Your task to perform on an android device: Empty the shopping cart on bestbuy.com. Add "razer blackwidow" to the cart on bestbuy.com Image 0: 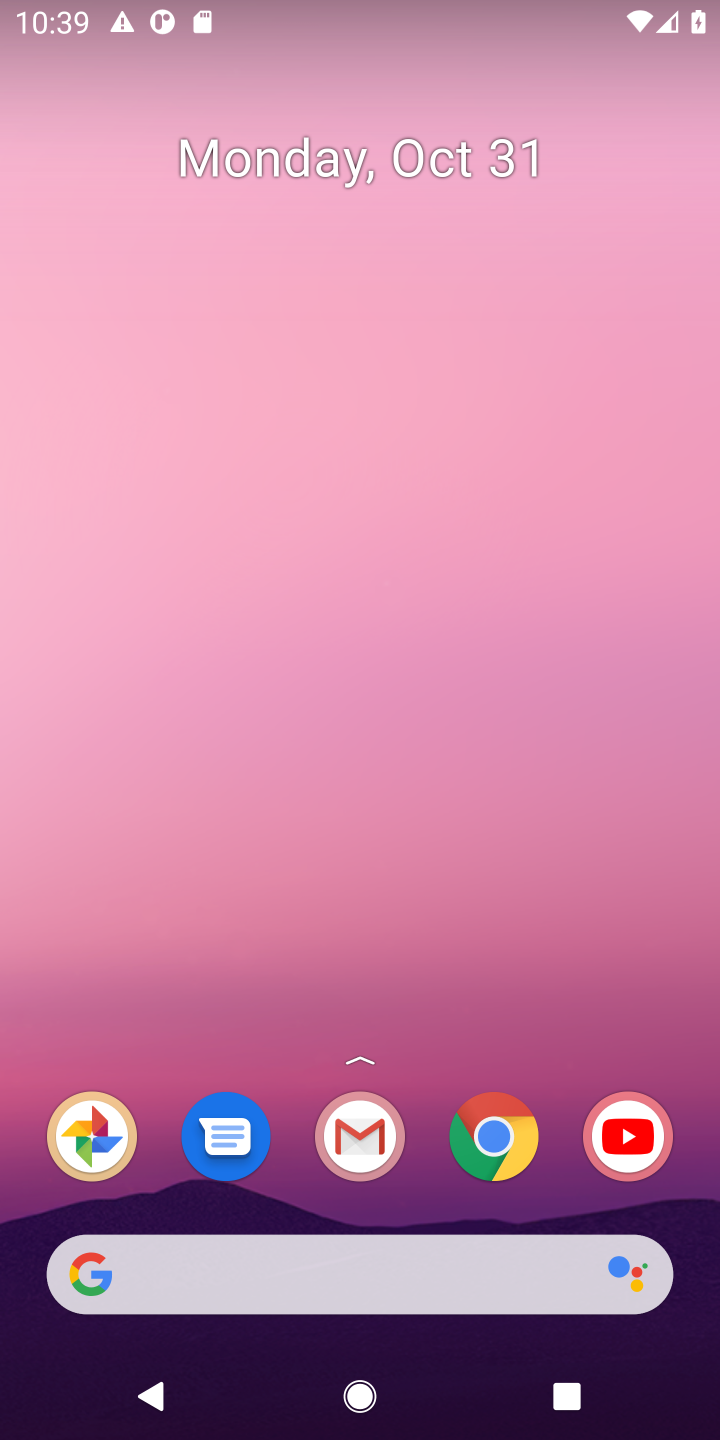
Step 0: press home button
Your task to perform on an android device: Empty the shopping cart on bestbuy.com. Add "razer blackwidow" to the cart on bestbuy.com Image 1: 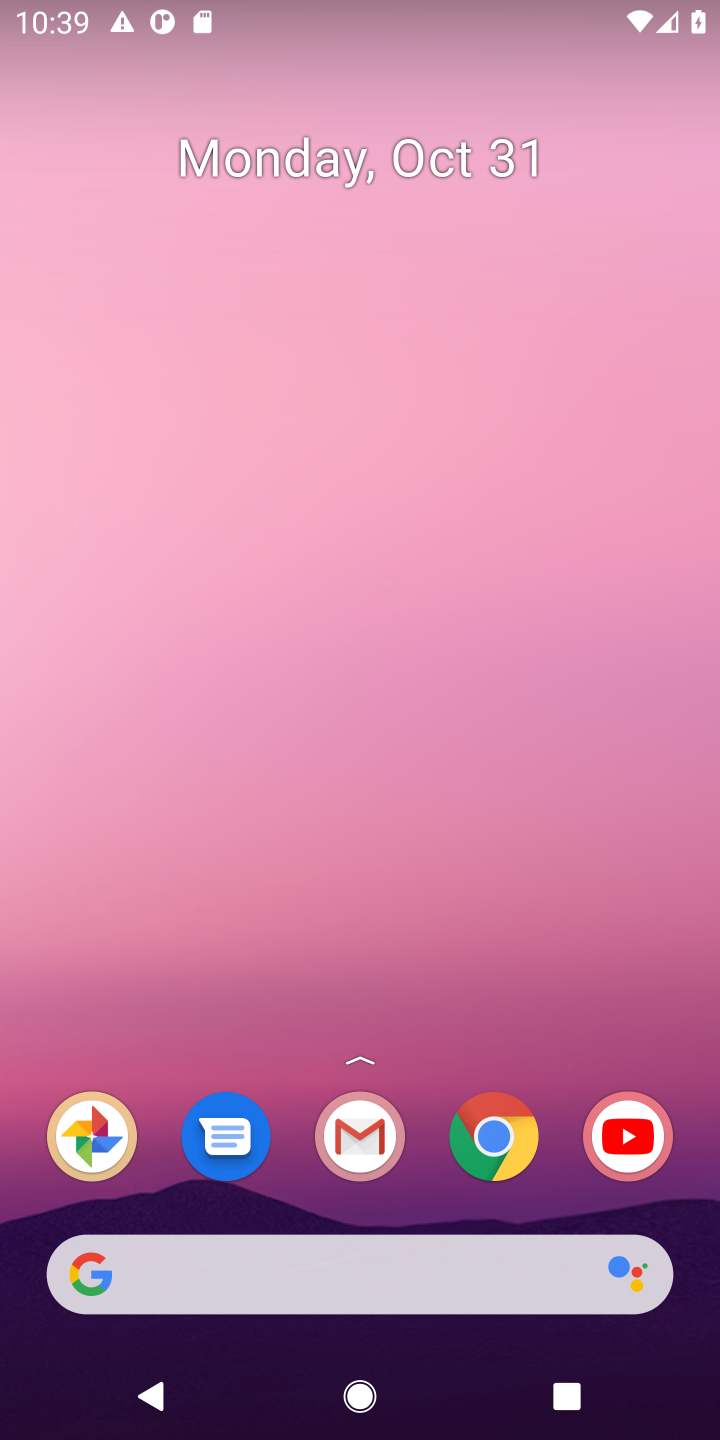
Step 1: click (134, 1268)
Your task to perform on an android device: Empty the shopping cart on bestbuy.com. Add "razer blackwidow" to the cart on bestbuy.com Image 2: 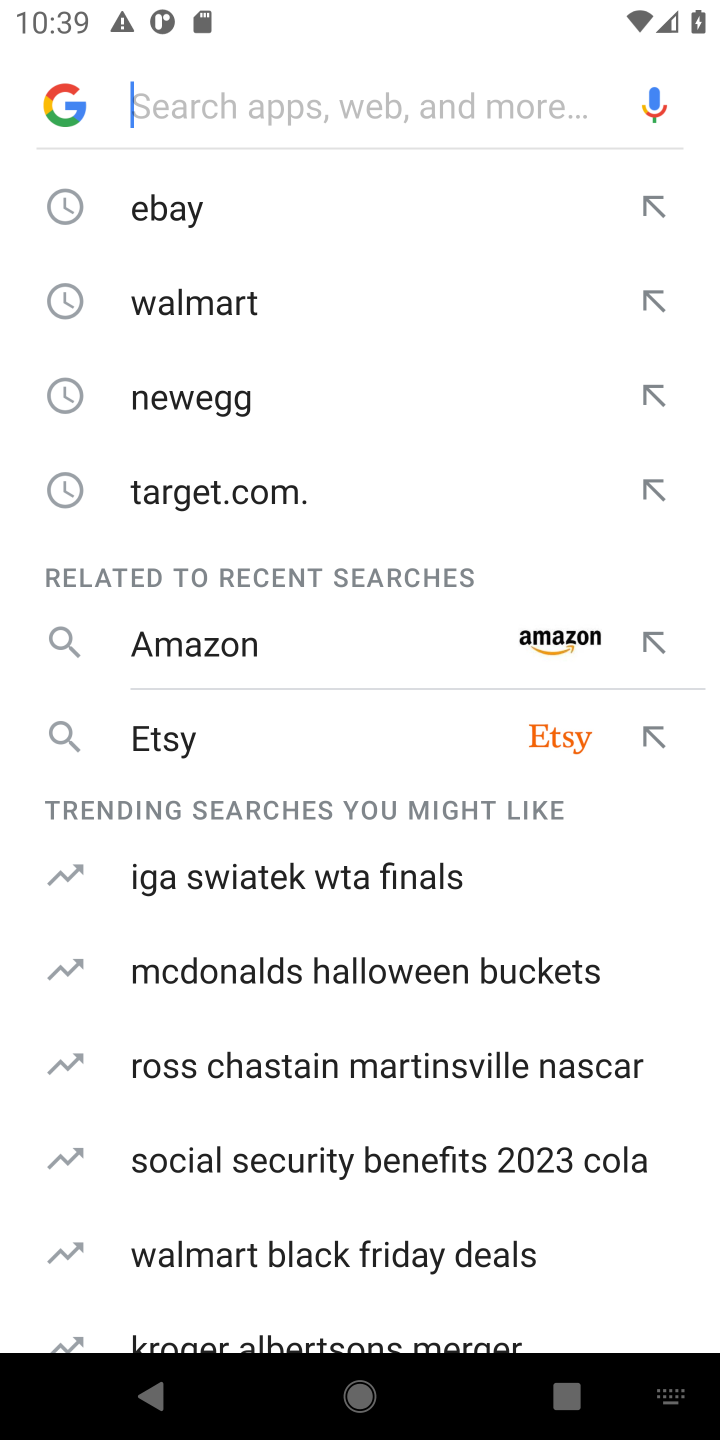
Step 2: type " bestbuy.com"
Your task to perform on an android device: Empty the shopping cart on bestbuy.com. Add "razer blackwidow" to the cart on bestbuy.com Image 3: 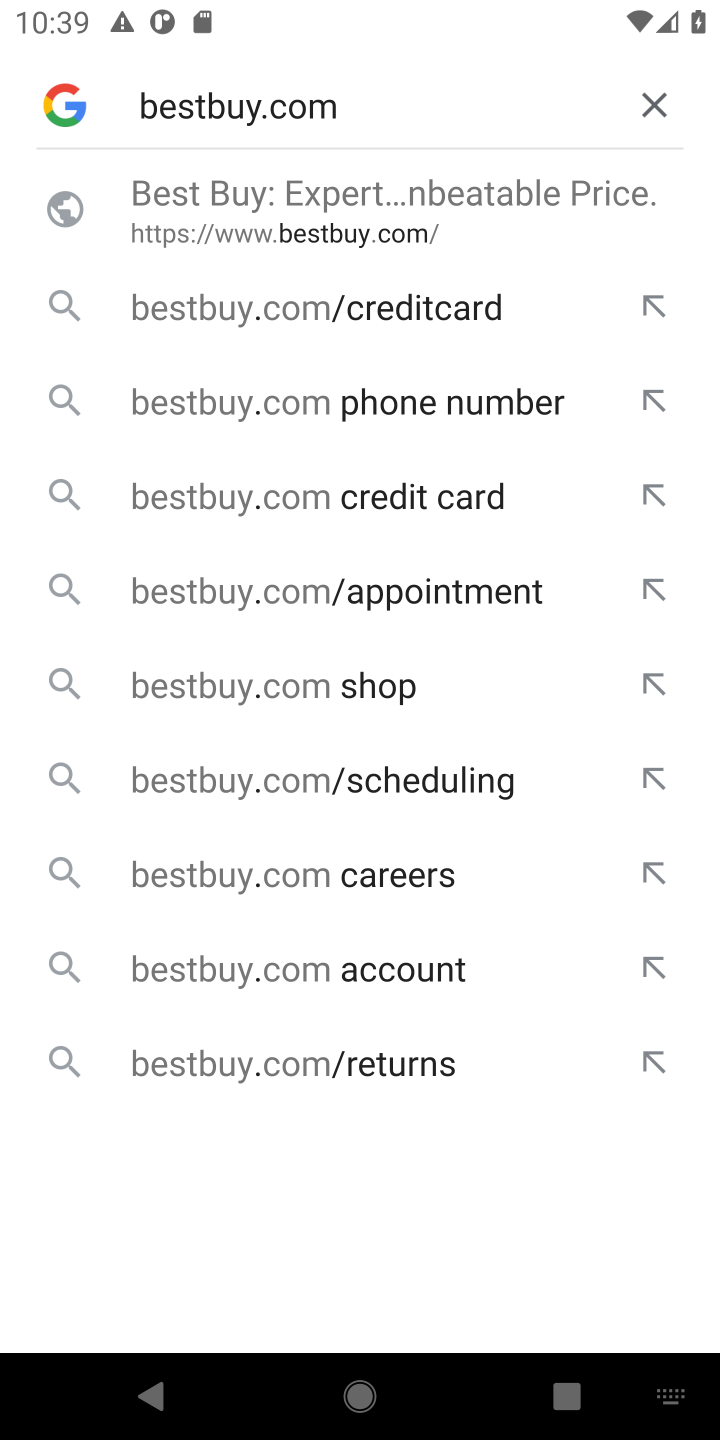
Step 3: press enter
Your task to perform on an android device: Empty the shopping cart on bestbuy.com. Add "razer blackwidow" to the cart on bestbuy.com Image 4: 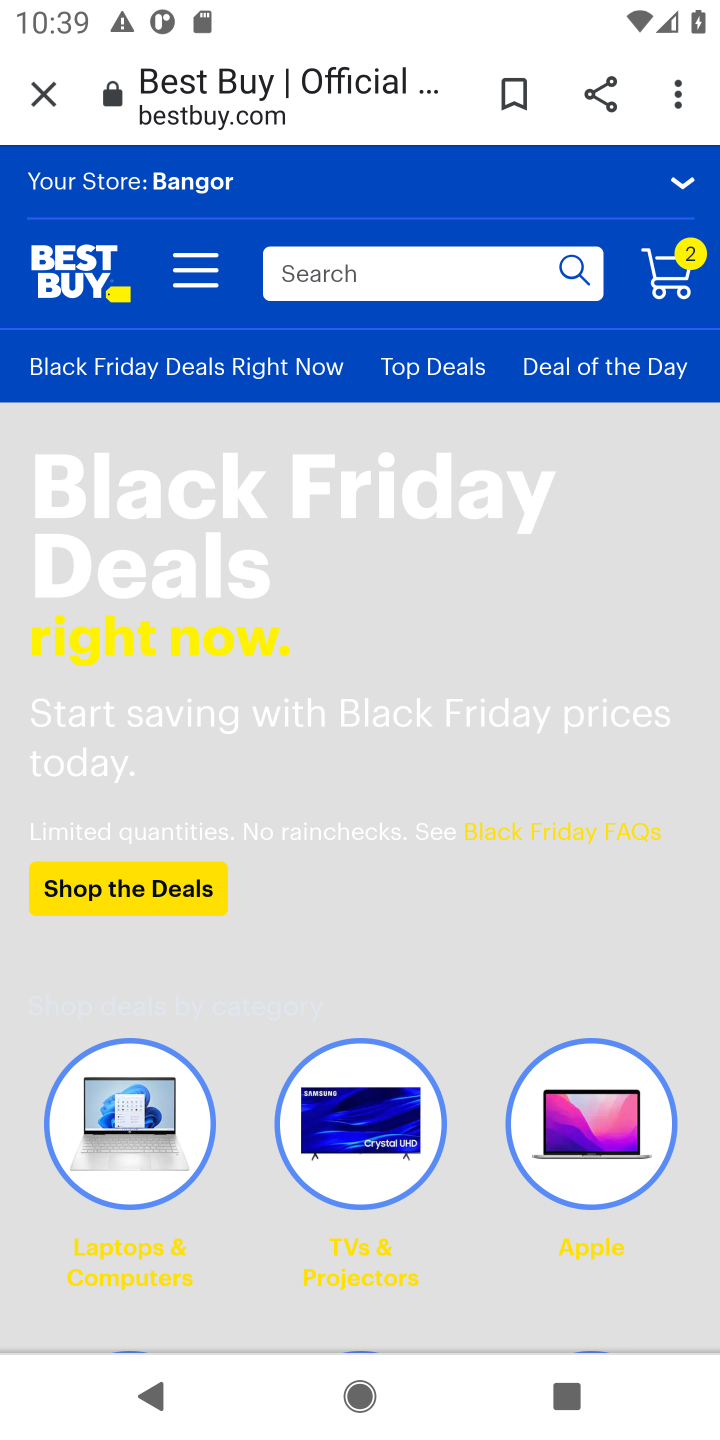
Step 4: click (685, 258)
Your task to perform on an android device: Empty the shopping cart on bestbuy.com. Add "razer blackwidow" to the cart on bestbuy.com Image 5: 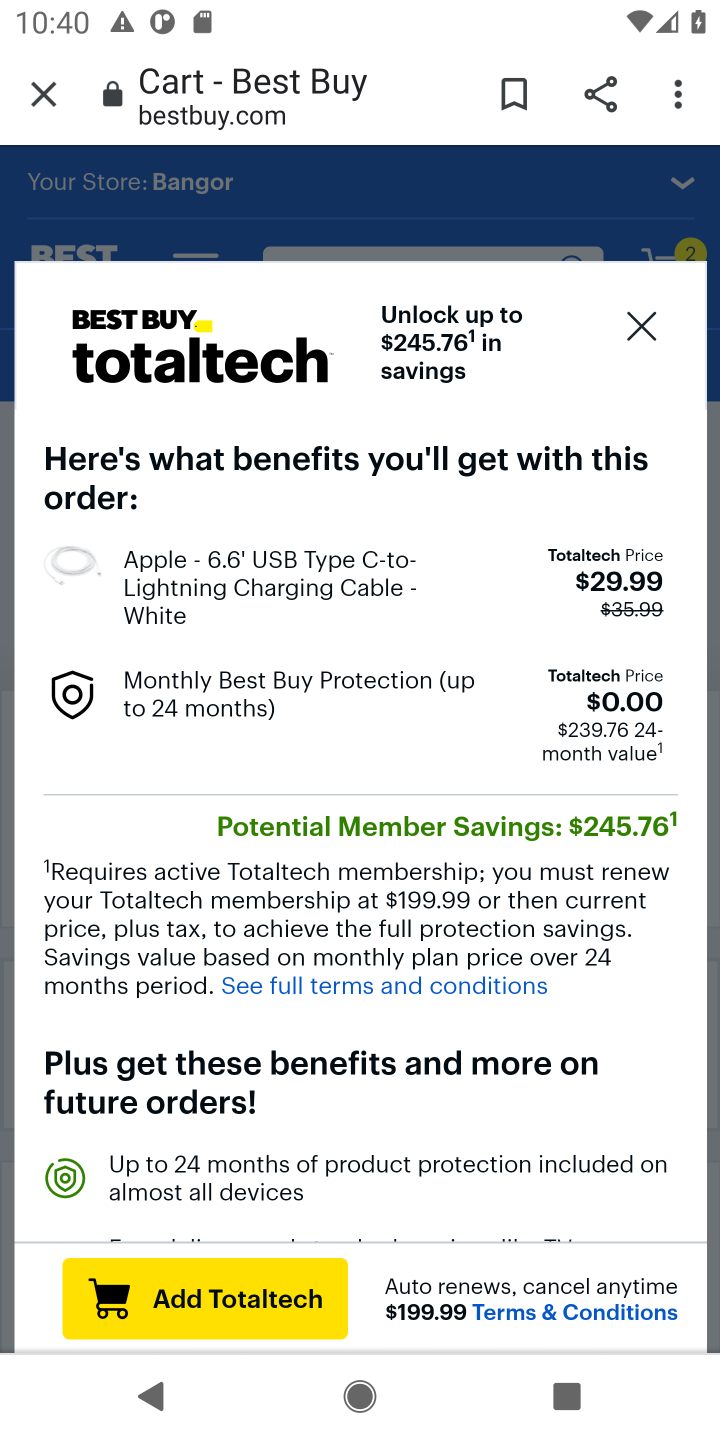
Step 5: click (648, 321)
Your task to perform on an android device: Empty the shopping cart on bestbuy.com. Add "razer blackwidow" to the cart on bestbuy.com Image 6: 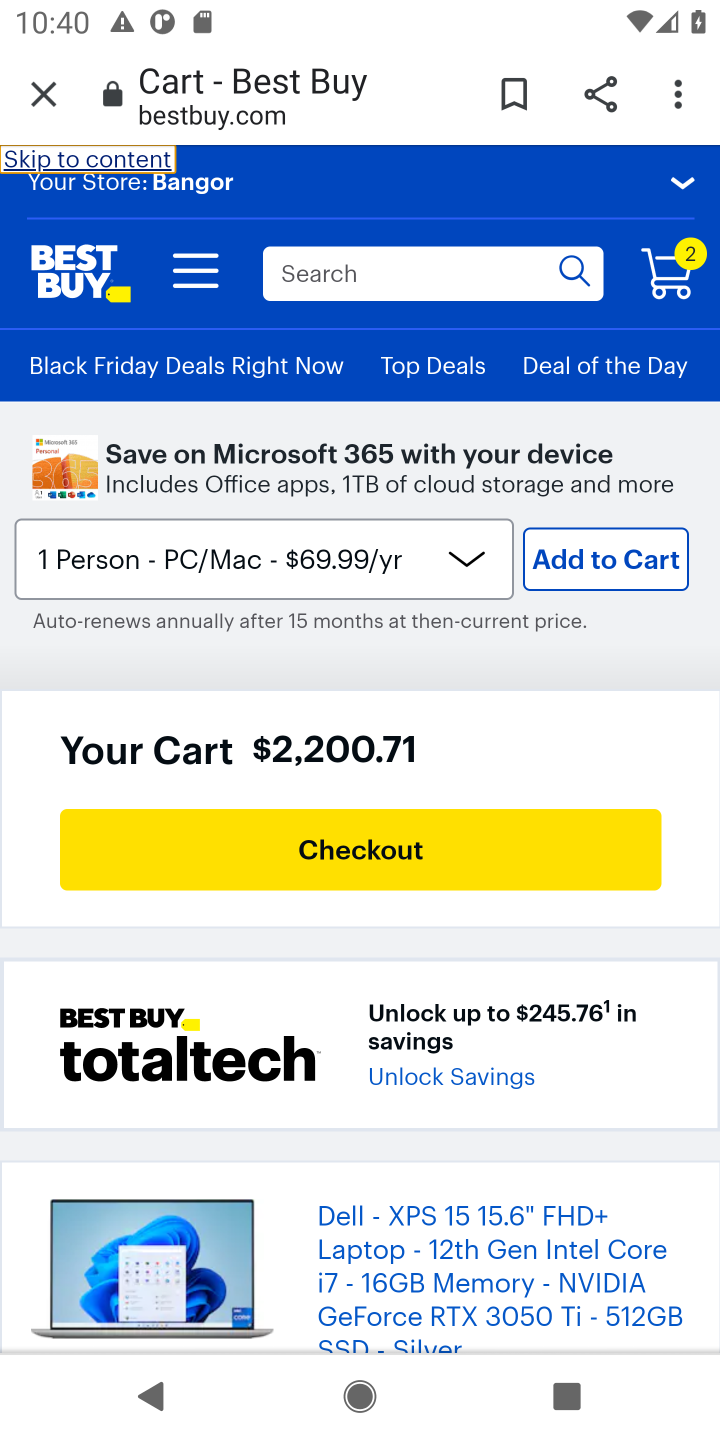
Step 6: drag from (264, 1053) to (294, 413)
Your task to perform on an android device: Empty the shopping cart on bestbuy.com. Add "razer blackwidow" to the cart on bestbuy.com Image 7: 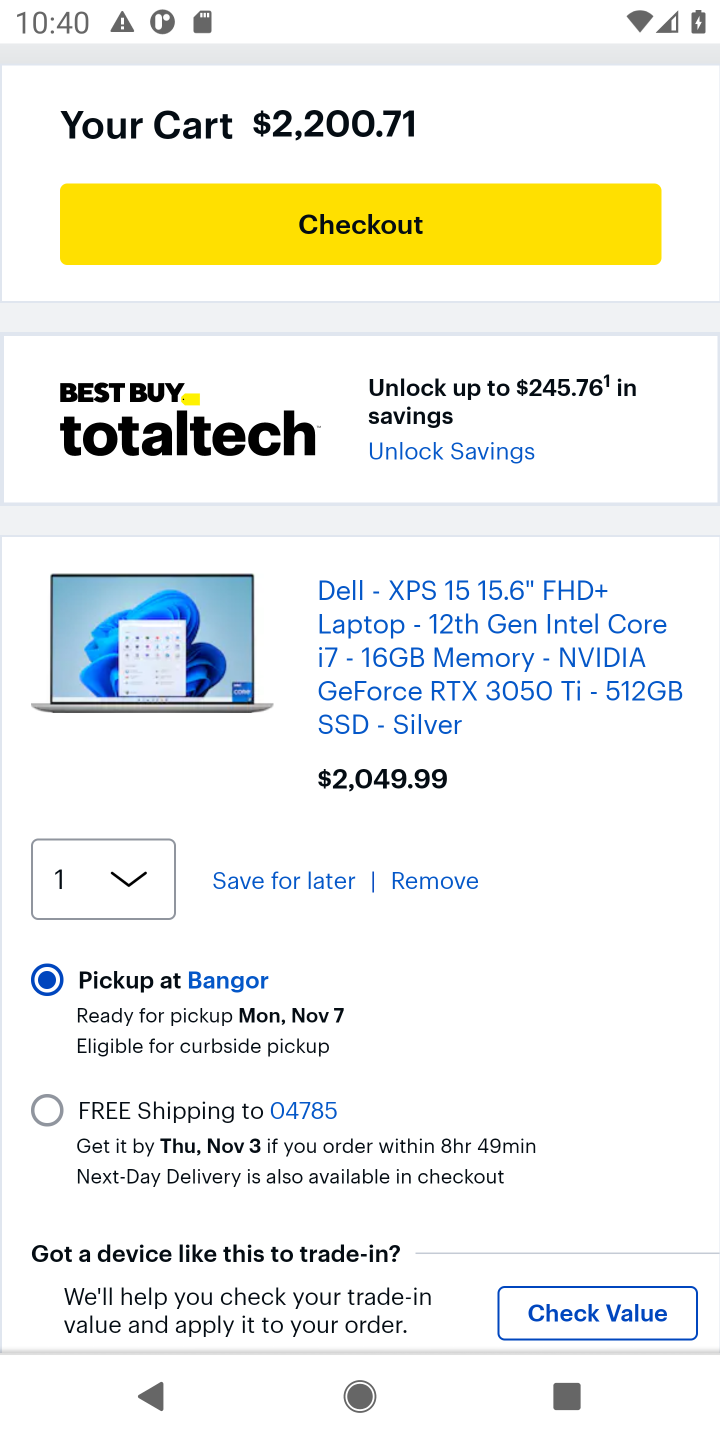
Step 7: click (440, 876)
Your task to perform on an android device: Empty the shopping cart on bestbuy.com. Add "razer blackwidow" to the cart on bestbuy.com Image 8: 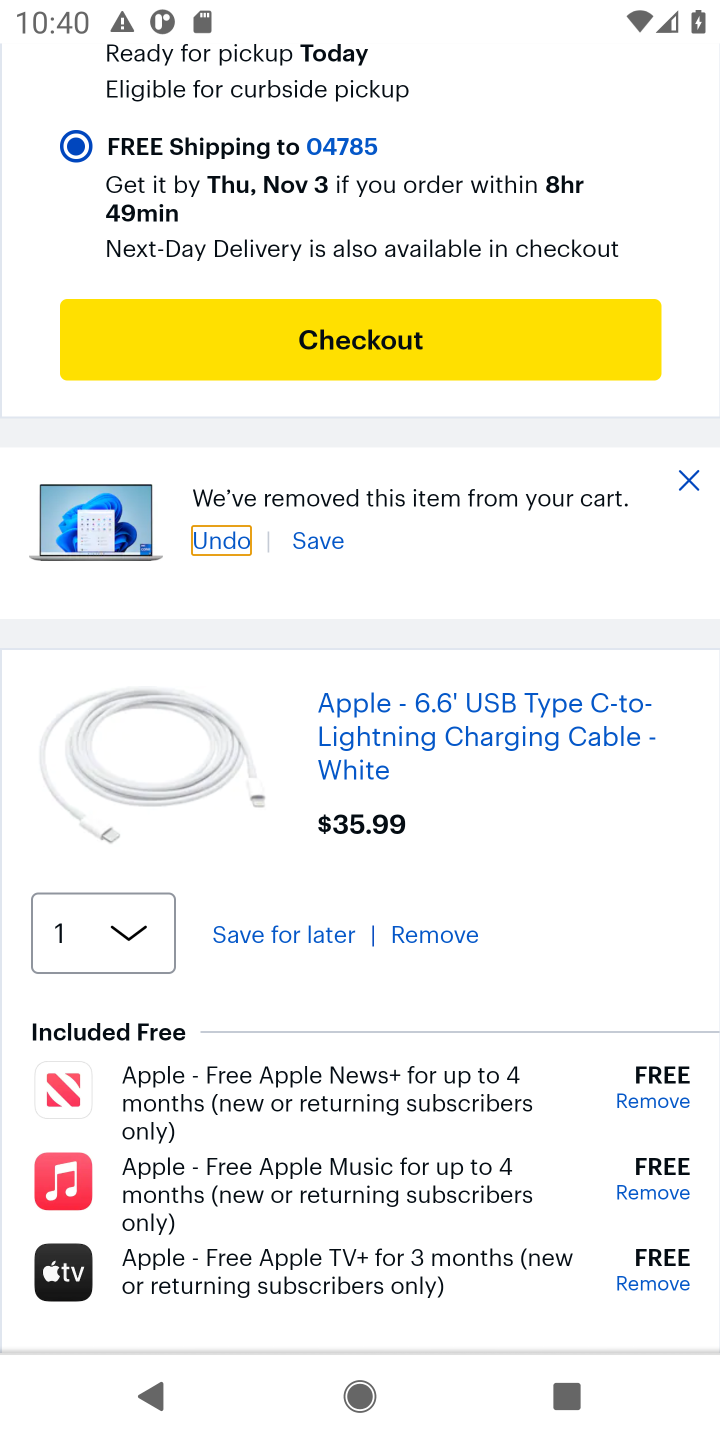
Step 8: click (441, 935)
Your task to perform on an android device: Empty the shopping cart on bestbuy.com. Add "razer blackwidow" to the cart on bestbuy.com Image 9: 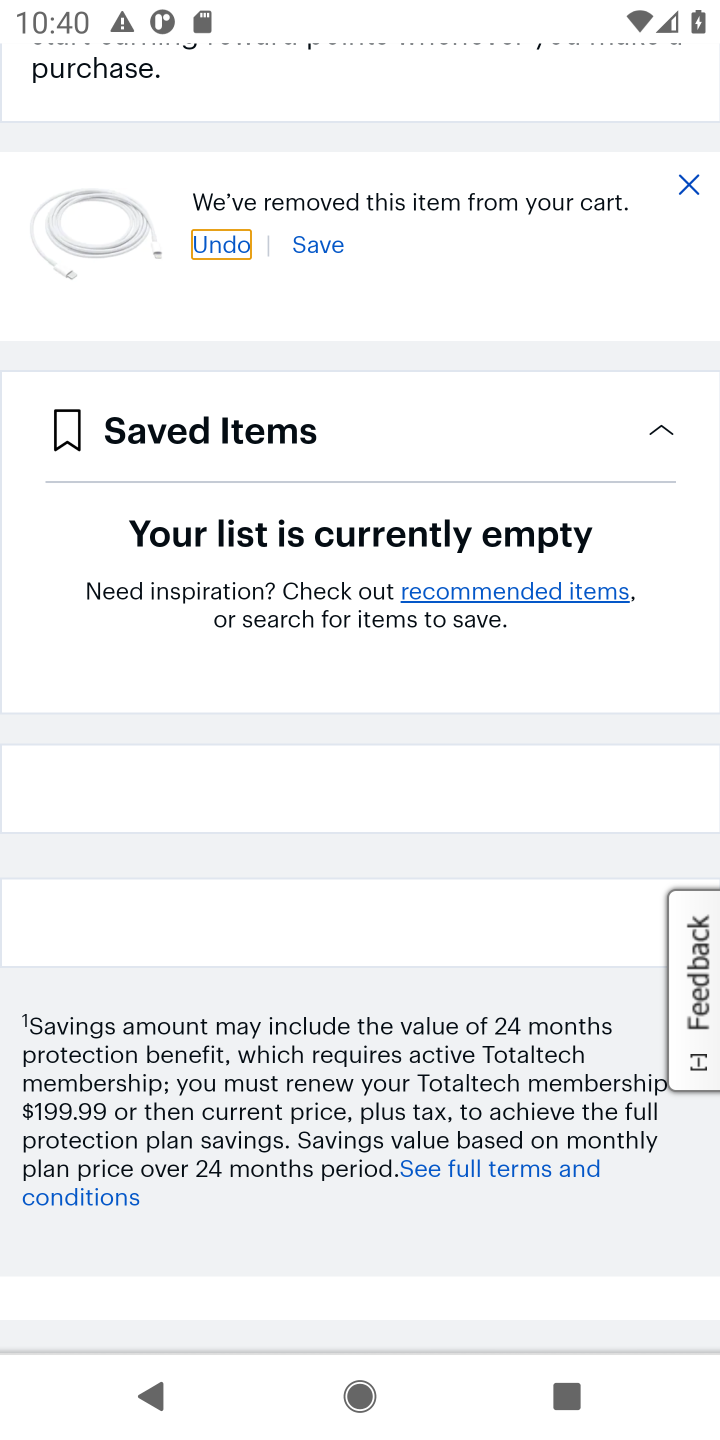
Step 9: drag from (528, 237) to (466, 914)
Your task to perform on an android device: Empty the shopping cart on bestbuy.com. Add "razer blackwidow" to the cart on bestbuy.com Image 10: 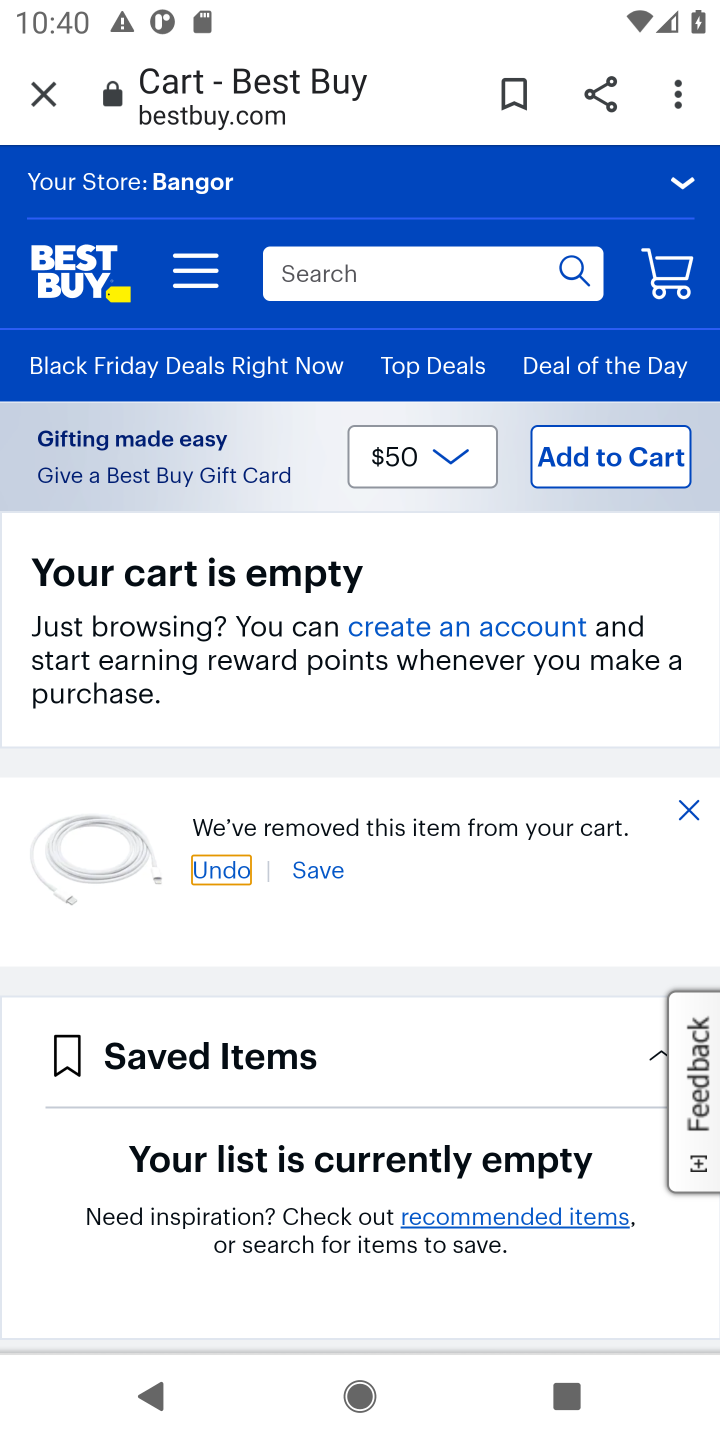
Step 10: click (693, 799)
Your task to perform on an android device: Empty the shopping cart on bestbuy.com. Add "razer blackwidow" to the cart on bestbuy.com Image 11: 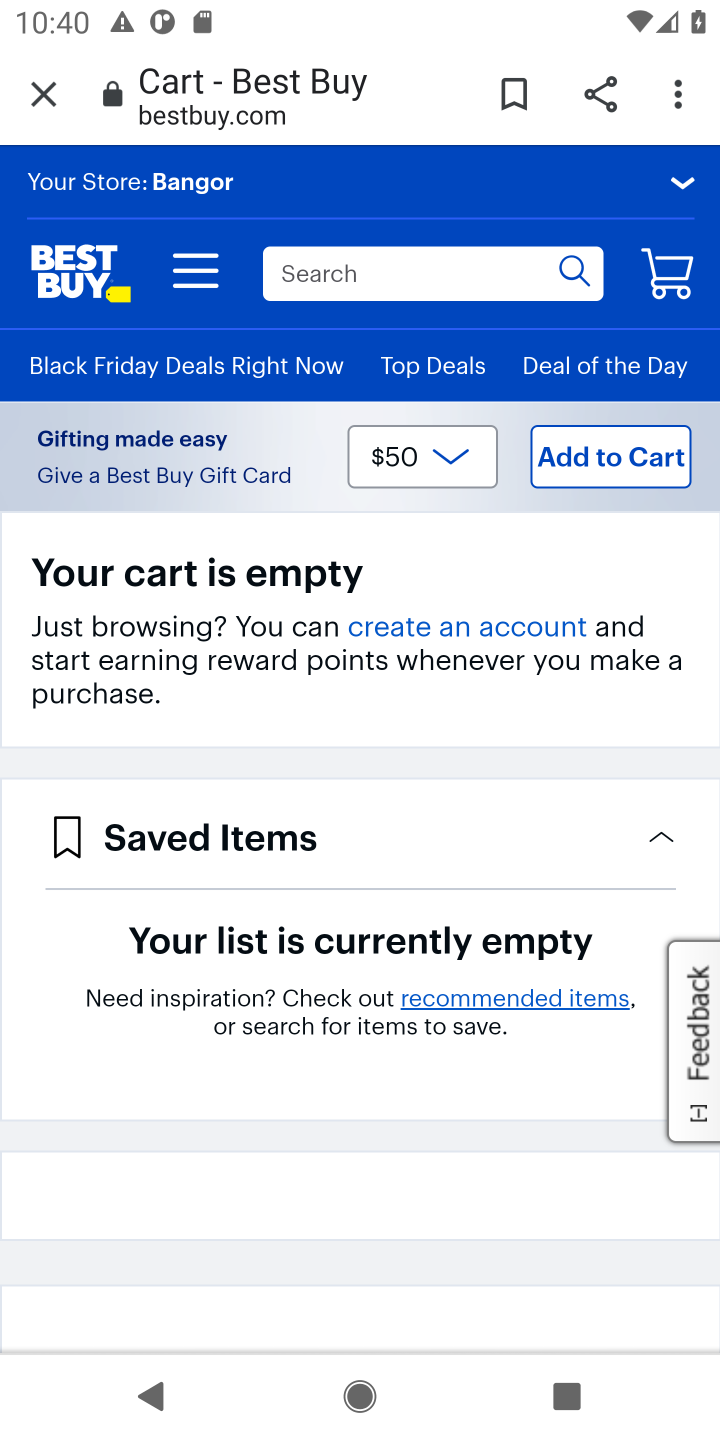
Step 11: click (343, 267)
Your task to perform on an android device: Empty the shopping cart on bestbuy.com. Add "razer blackwidow" to the cart on bestbuy.com Image 12: 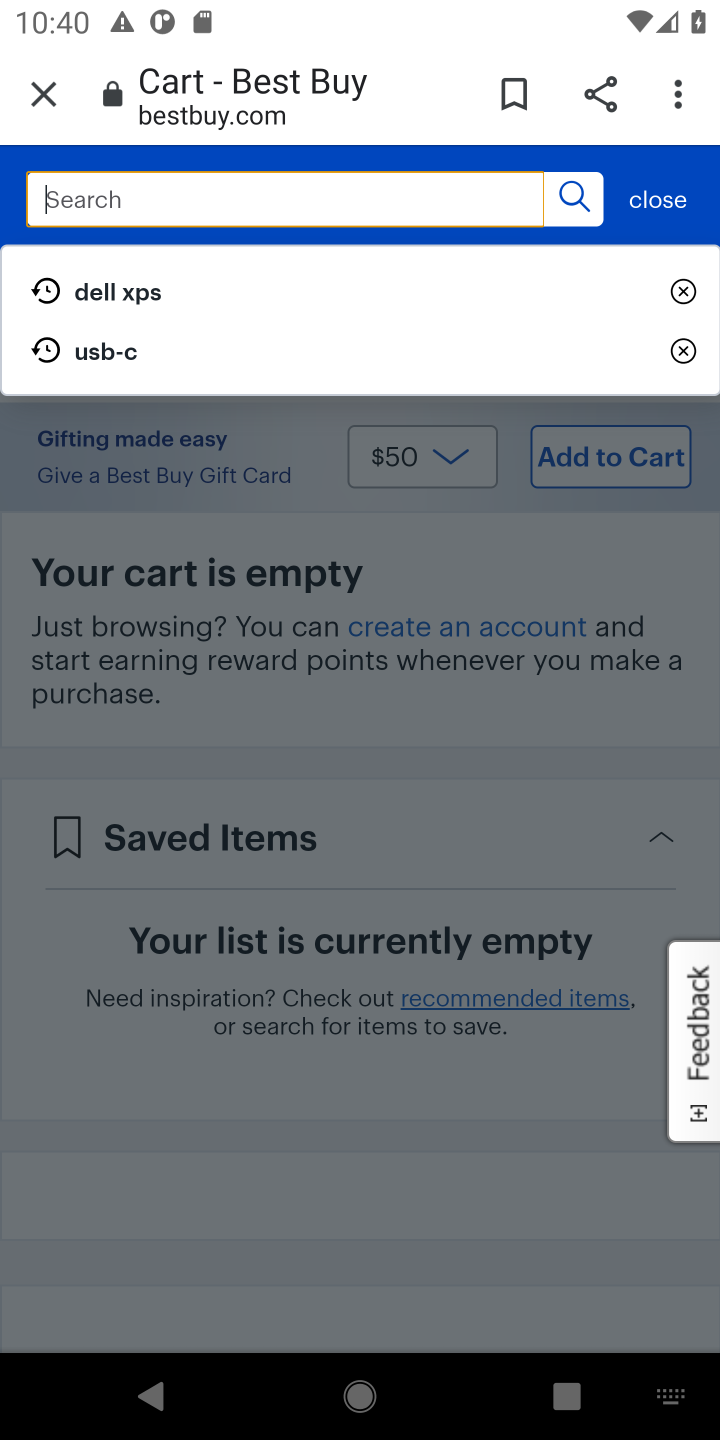
Step 12: type "razer blackwidow"
Your task to perform on an android device: Empty the shopping cart on bestbuy.com. Add "razer blackwidow" to the cart on bestbuy.com Image 13: 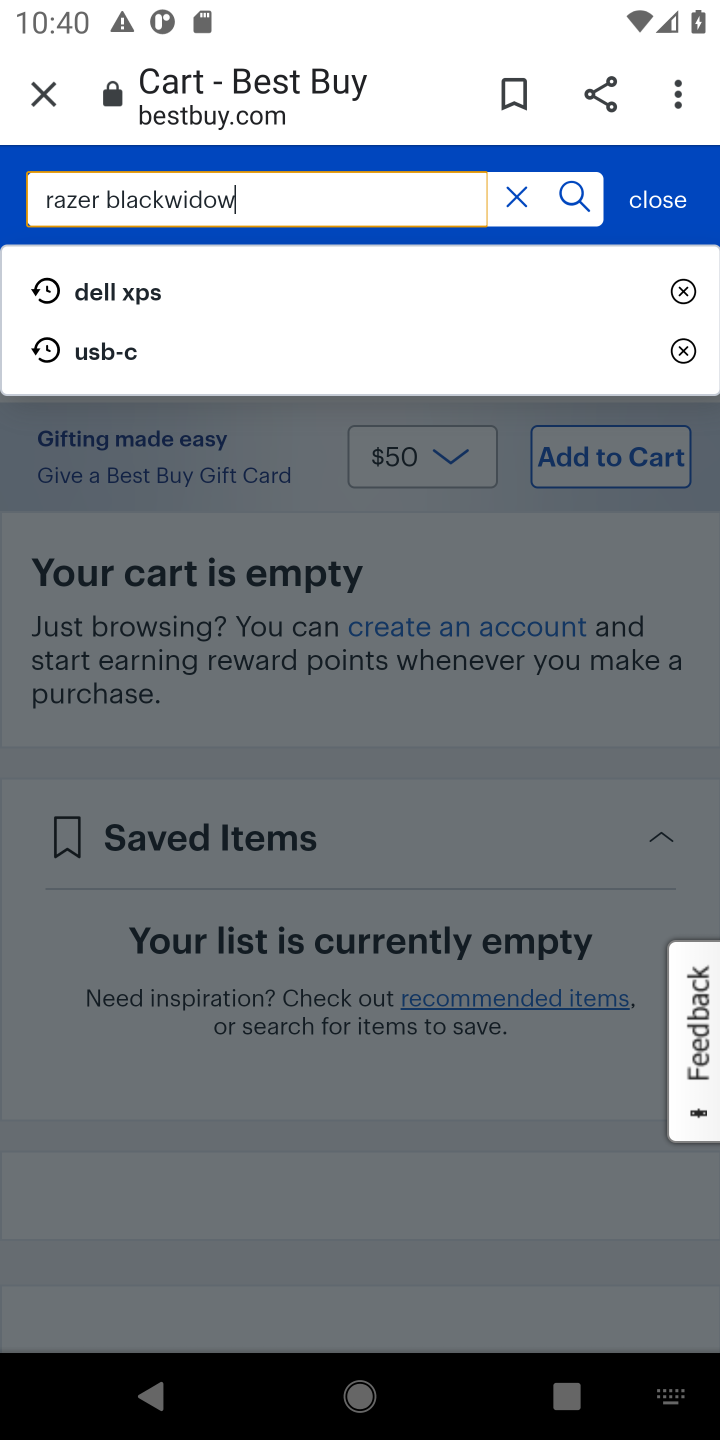
Step 13: press enter
Your task to perform on an android device: Empty the shopping cart on bestbuy.com. Add "razer blackwidow" to the cart on bestbuy.com Image 14: 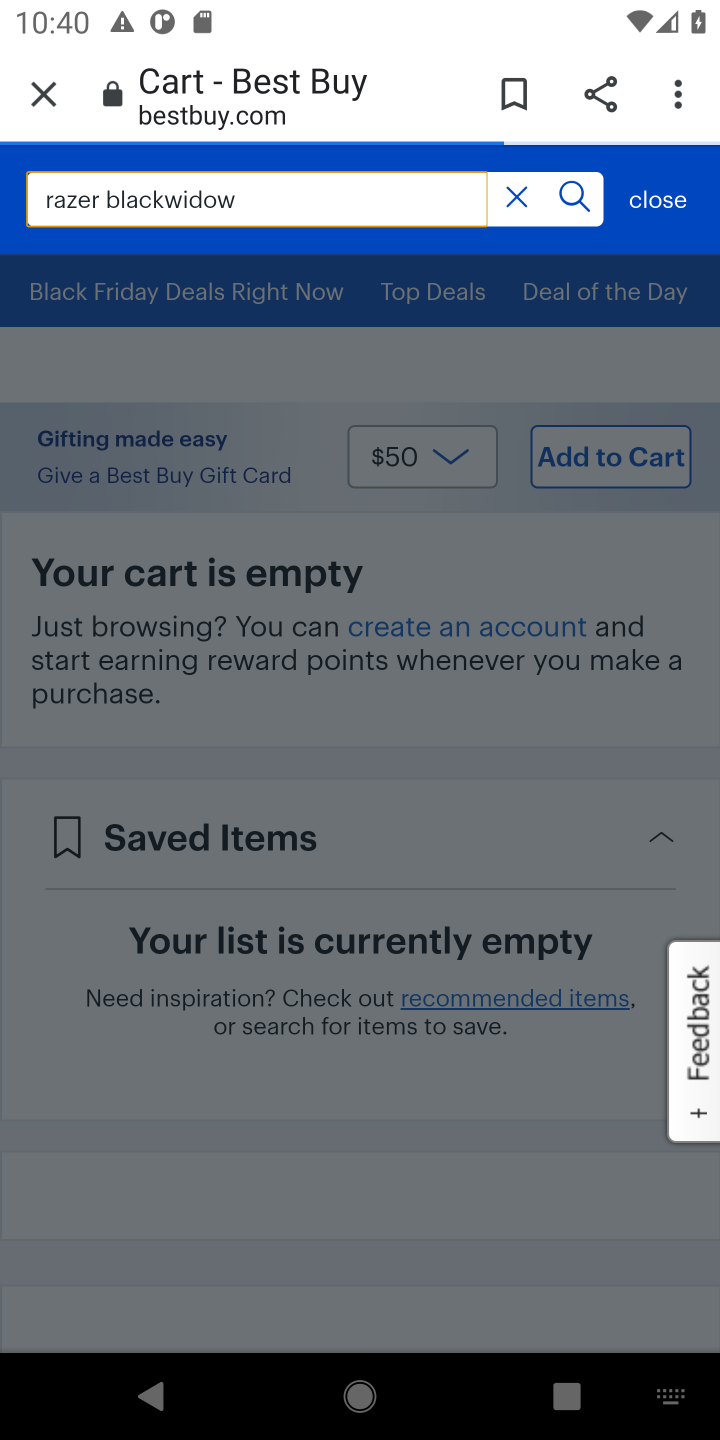
Step 14: click (575, 207)
Your task to perform on an android device: Empty the shopping cart on bestbuy.com. Add "razer blackwidow" to the cart on bestbuy.com Image 15: 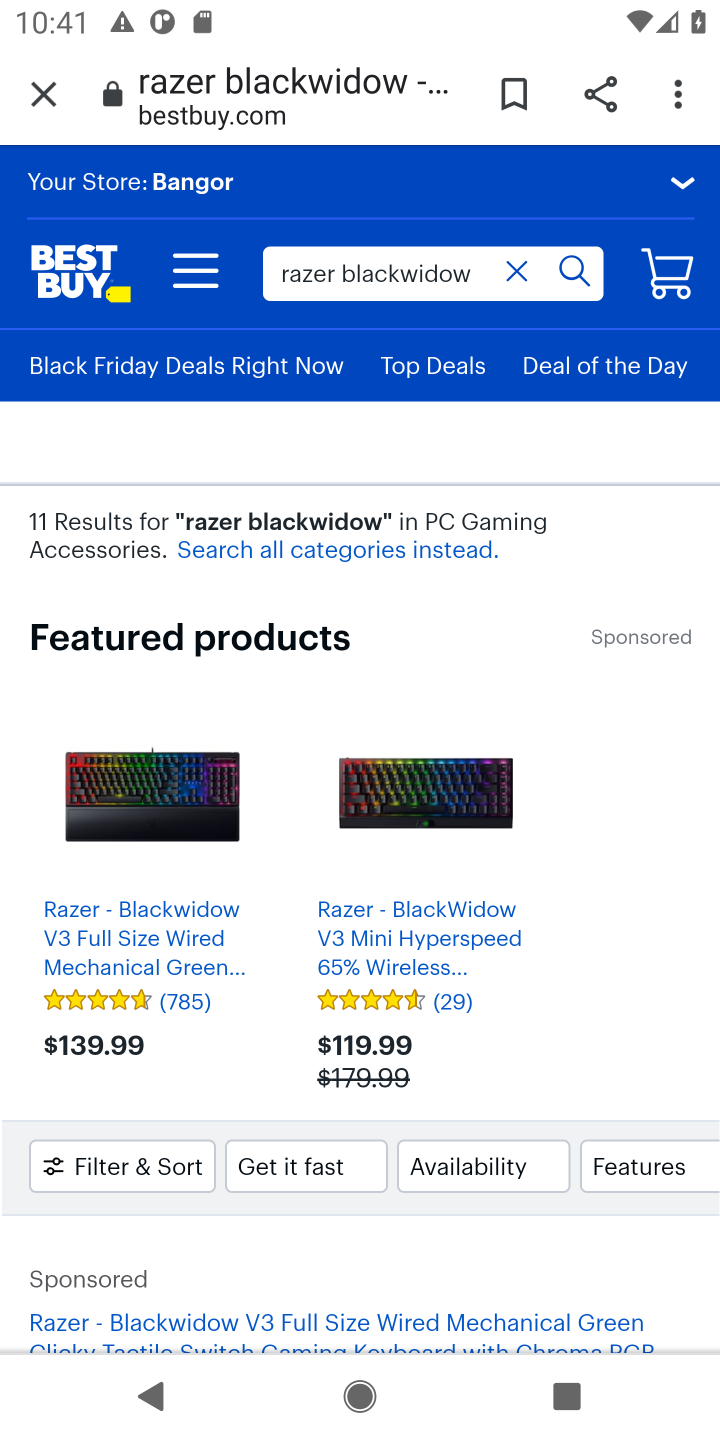
Step 15: drag from (371, 1089) to (373, 709)
Your task to perform on an android device: Empty the shopping cart on bestbuy.com. Add "razer blackwidow" to the cart on bestbuy.com Image 16: 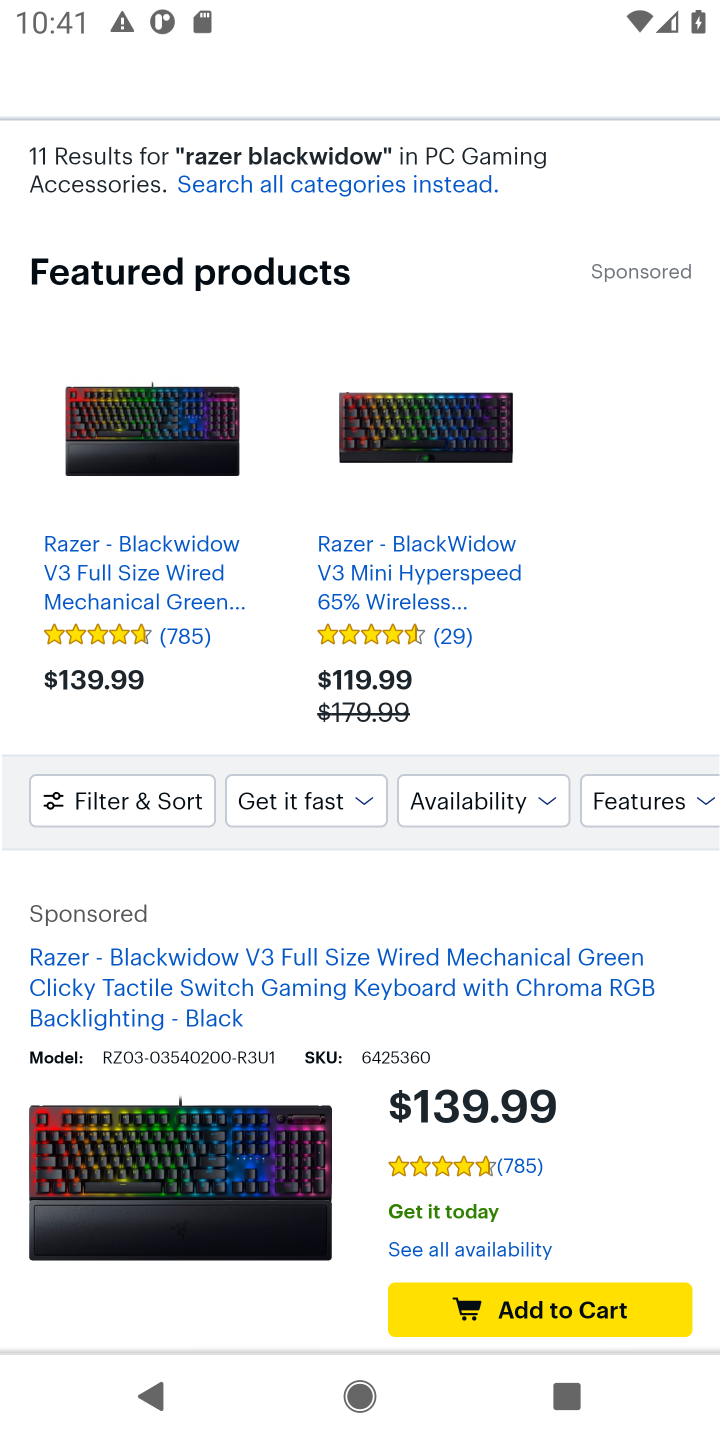
Step 16: click (563, 1316)
Your task to perform on an android device: Empty the shopping cart on bestbuy.com. Add "razer blackwidow" to the cart on bestbuy.com Image 17: 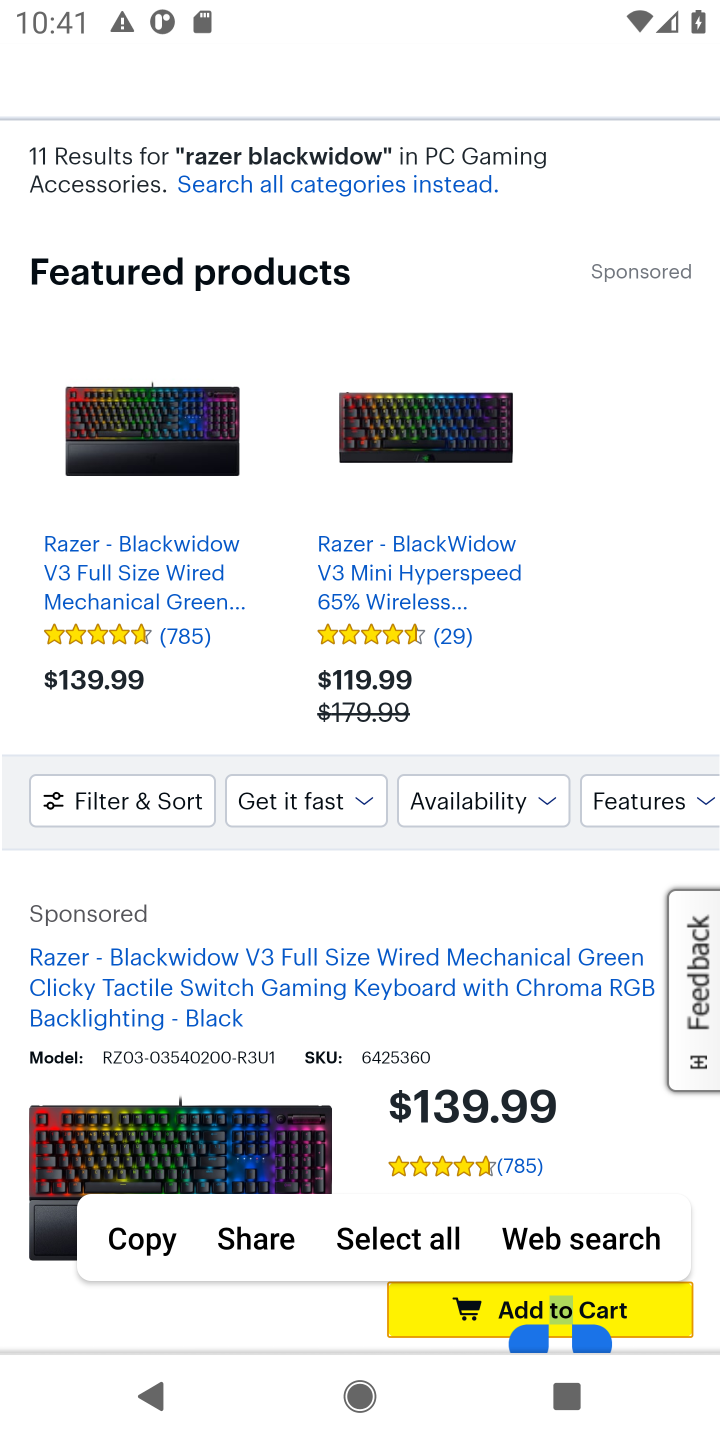
Step 17: click (472, 1307)
Your task to perform on an android device: Empty the shopping cart on bestbuy.com. Add "razer blackwidow" to the cart on bestbuy.com Image 18: 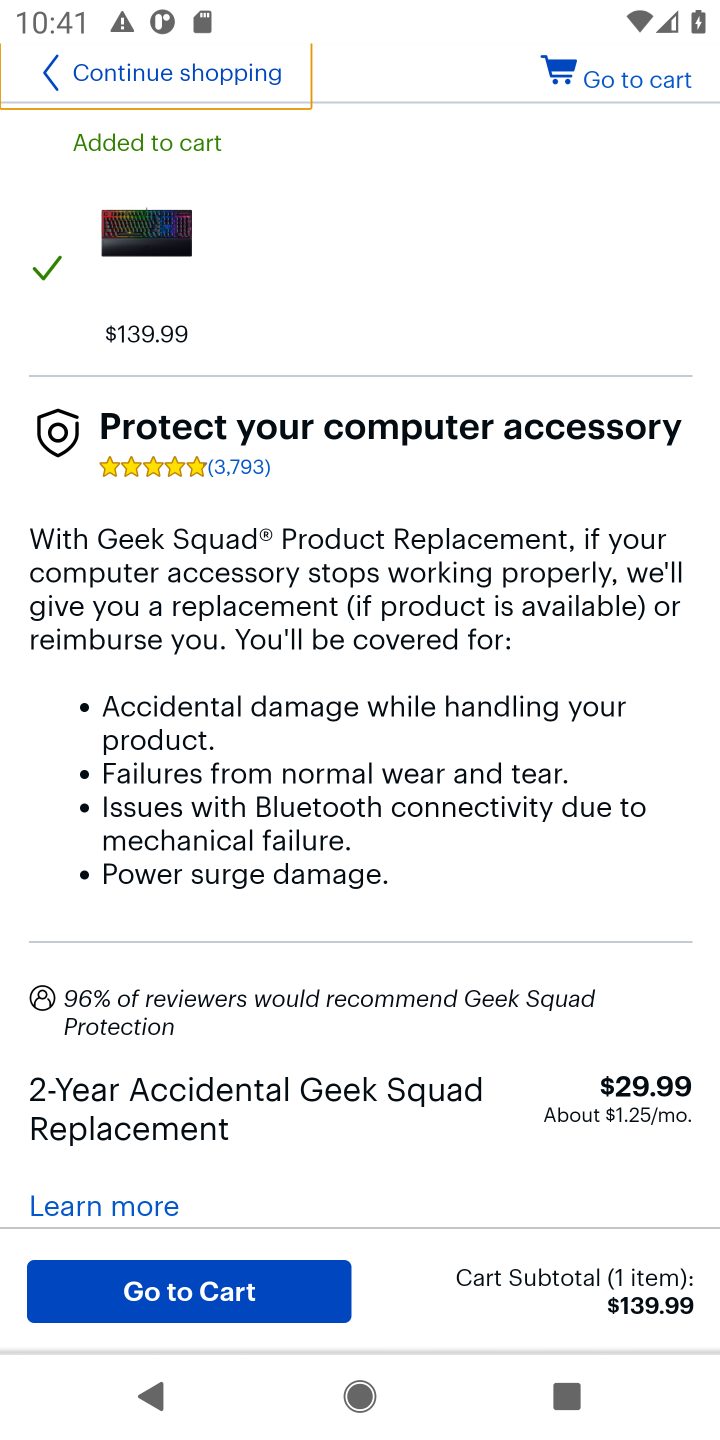
Step 18: task complete